Your task to perform on an android device: change the clock display to show seconds Image 0: 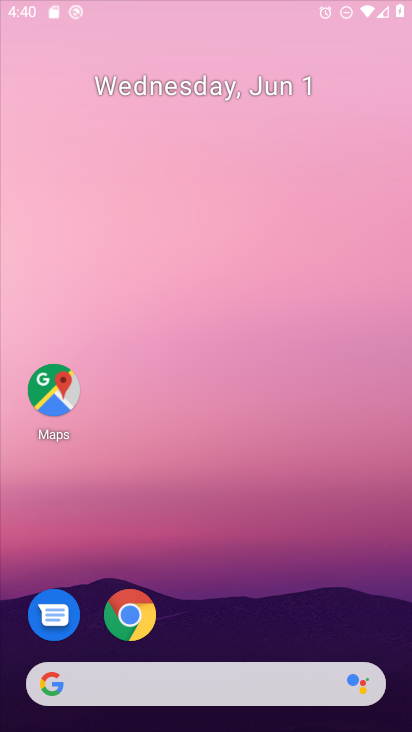
Step 0: press home button
Your task to perform on an android device: change the clock display to show seconds Image 1: 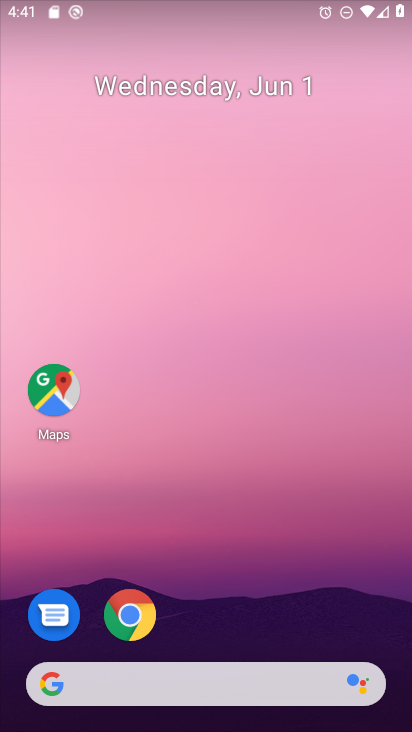
Step 1: drag from (212, 619) to (243, 95)
Your task to perform on an android device: change the clock display to show seconds Image 2: 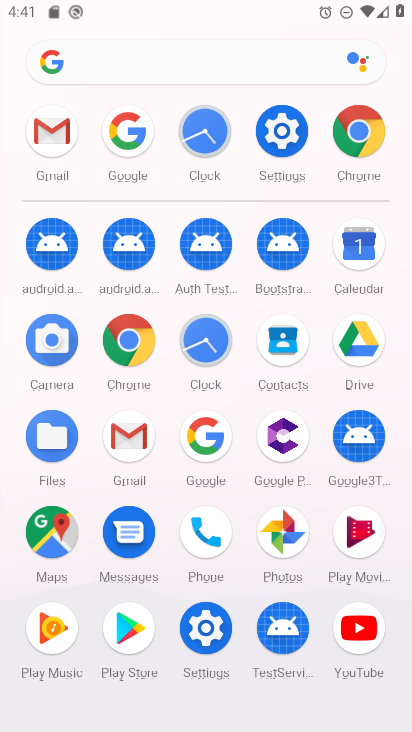
Step 2: click (201, 333)
Your task to perform on an android device: change the clock display to show seconds Image 3: 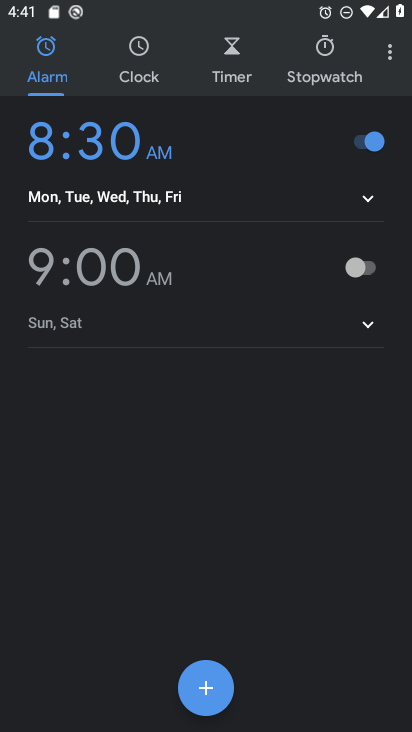
Step 3: click (388, 50)
Your task to perform on an android device: change the clock display to show seconds Image 4: 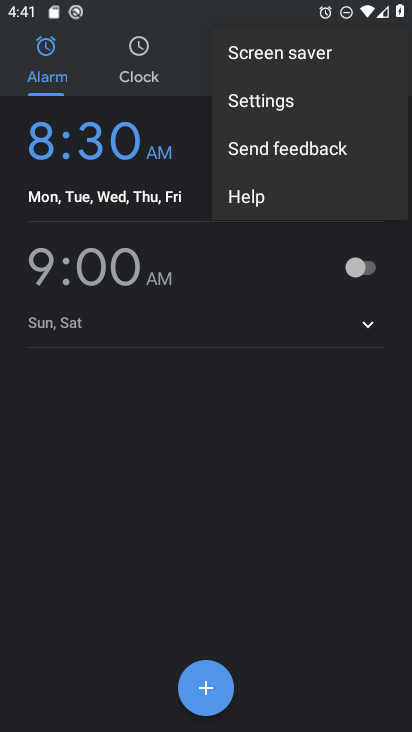
Step 4: click (312, 98)
Your task to perform on an android device: change the clock display to show seconds Image 5: 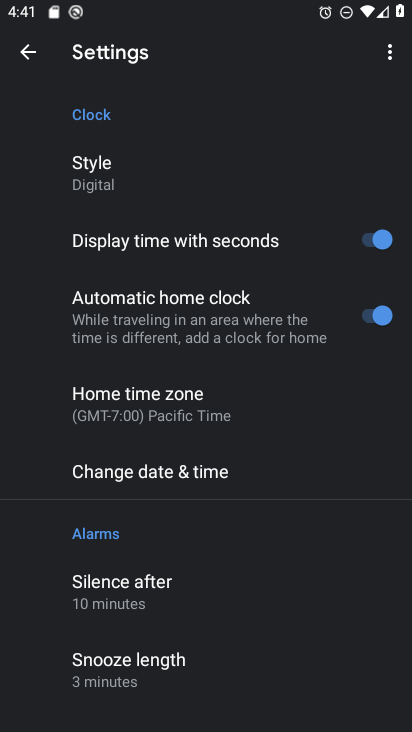
Step 5: click (370, 241)
Your task to perform on an android device: change the clock display to show seconds Image 6: 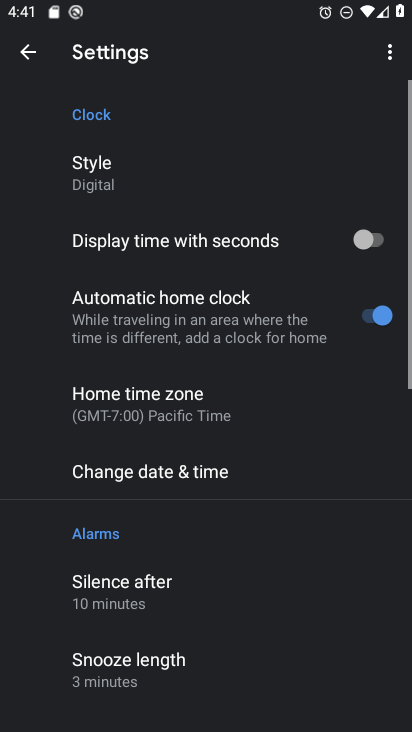
Step 6: task complete